Your task to perform on an android device: install app "Google Play Music" Image 0: 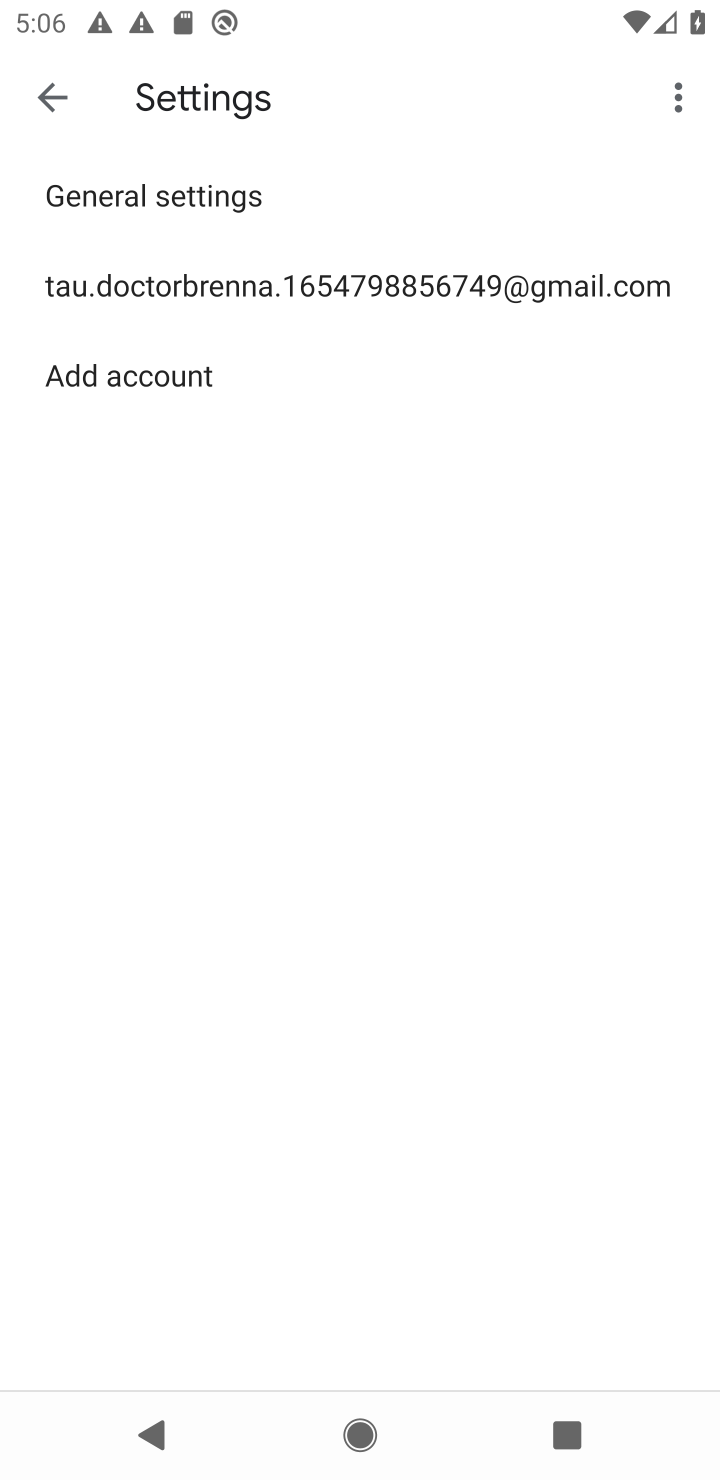
Step 0: press home button
Your task to perform on an android device: install app "Google Play Music" Image 1: 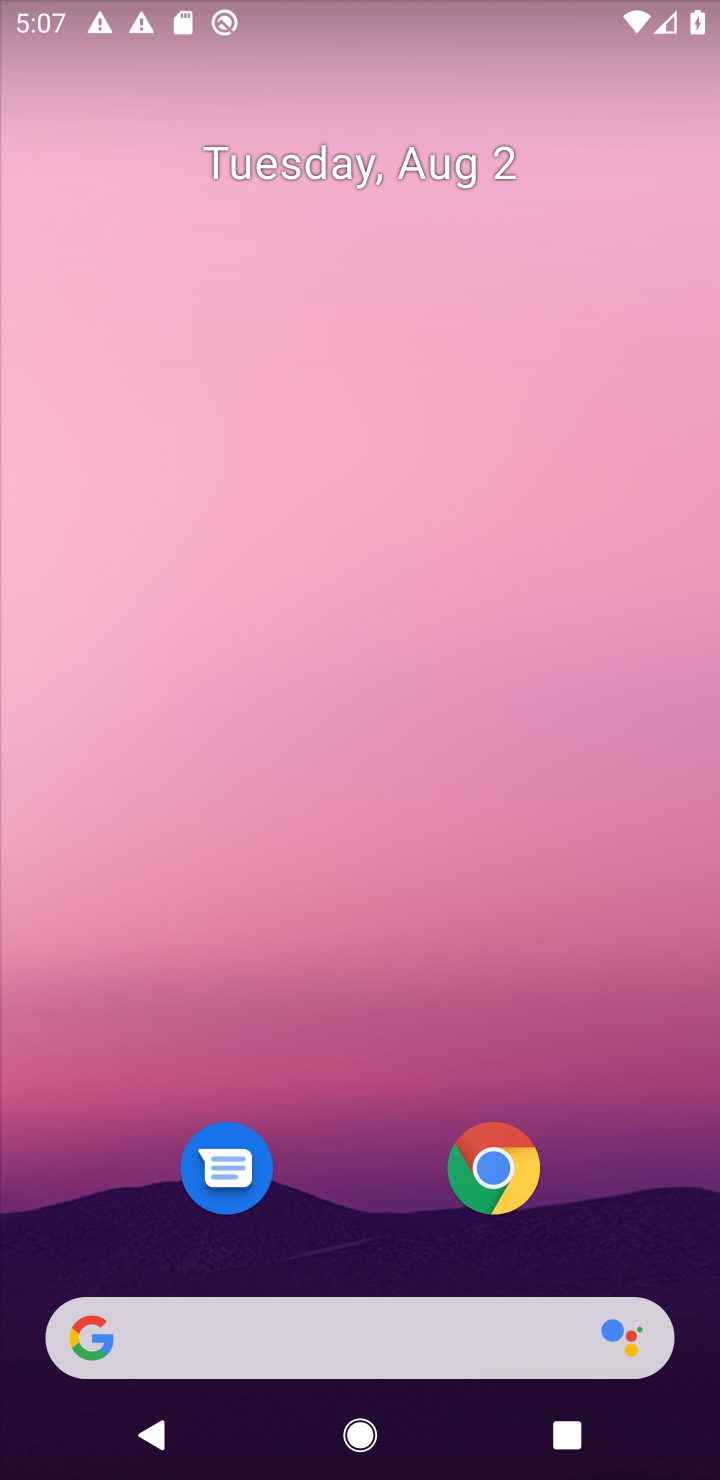
Step 1: drag from (223, 669) to (323, 42)
Your task to perform on an android device: install app "Google Play Music" Image 2: 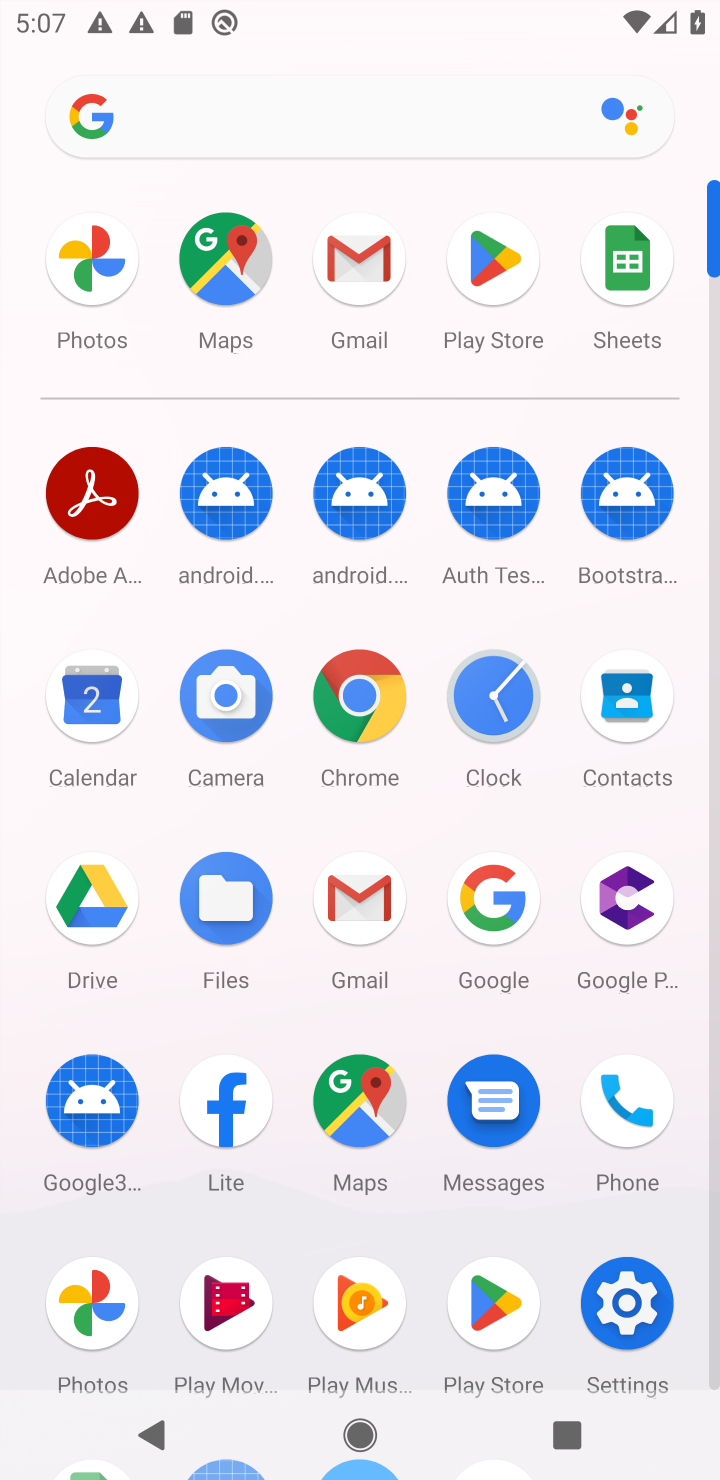
Step 2: click (494, 285)
Your task to perform on an android device: install app "Google Play Music" Image 3: 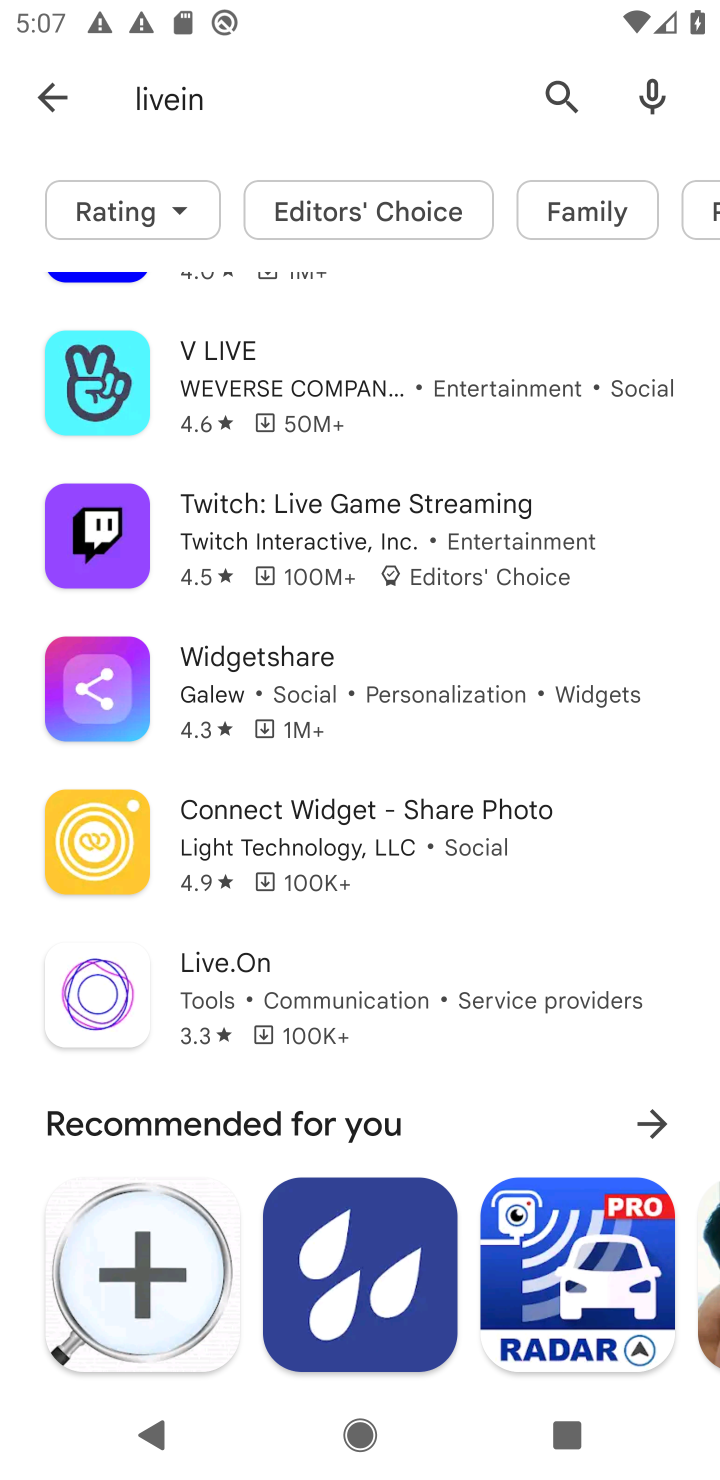
Step 3: click (268, 91)
Your task to perform on an android device: install app "Google Play Music" Image 4: 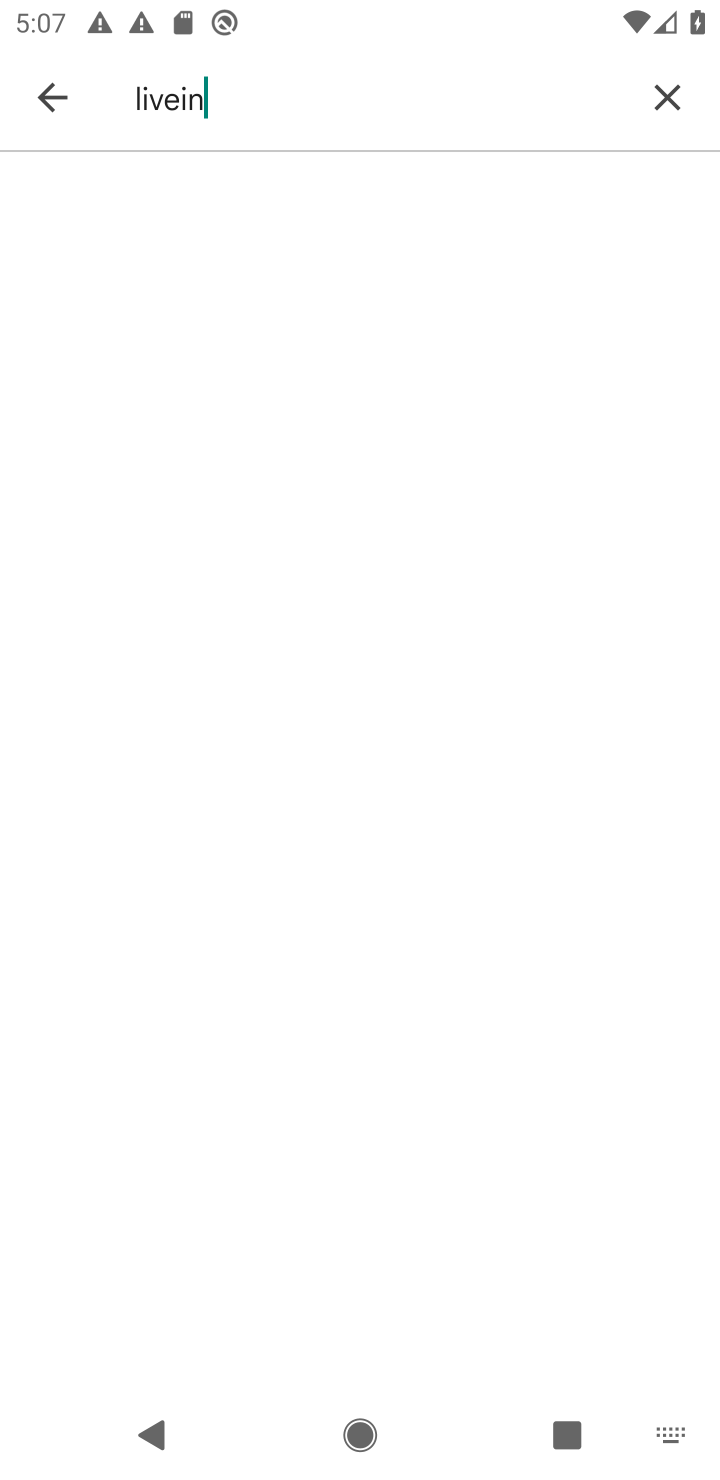
Step 4: click (660, 89)
Your task to perform on an android device: install app "Google Play Music" Image 5: 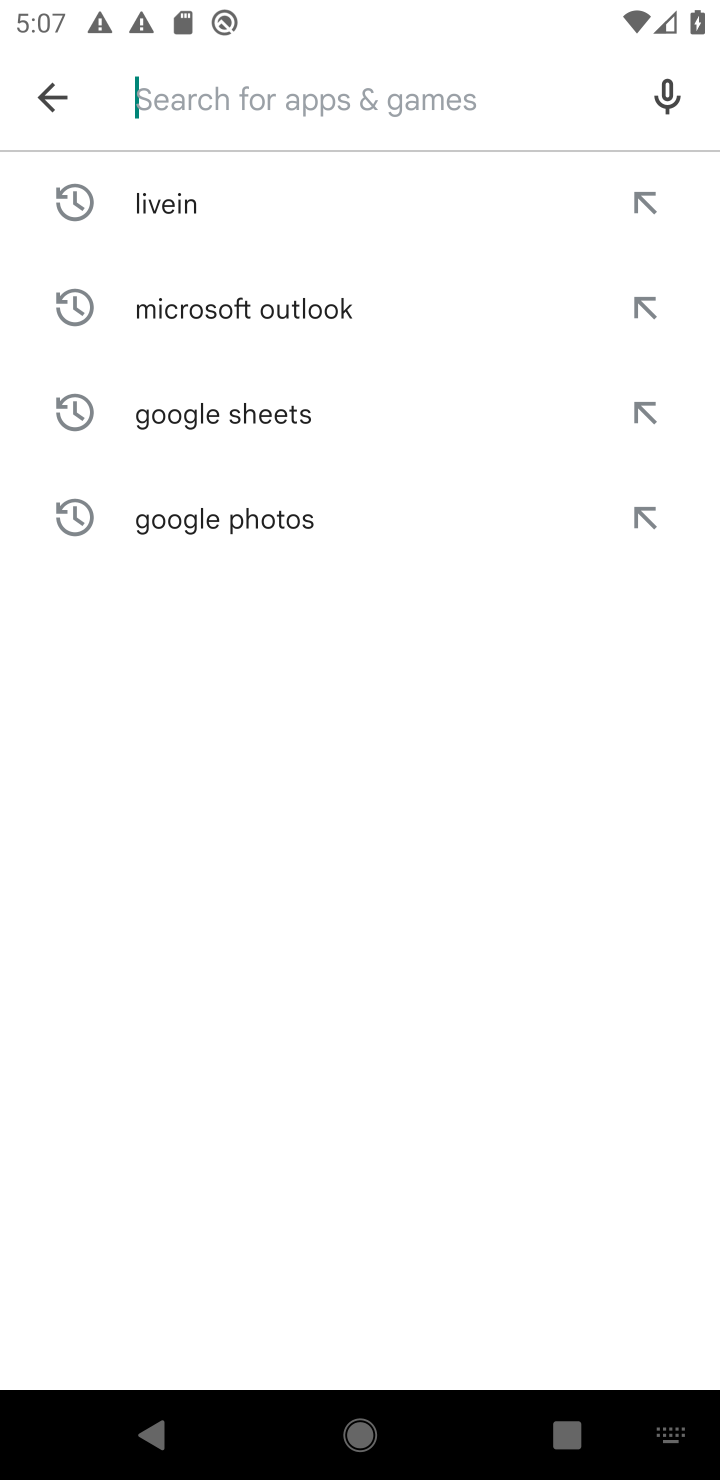
Step 5: type ""
Your task to perform on an android device: install app "Google Play Music" Image 6: 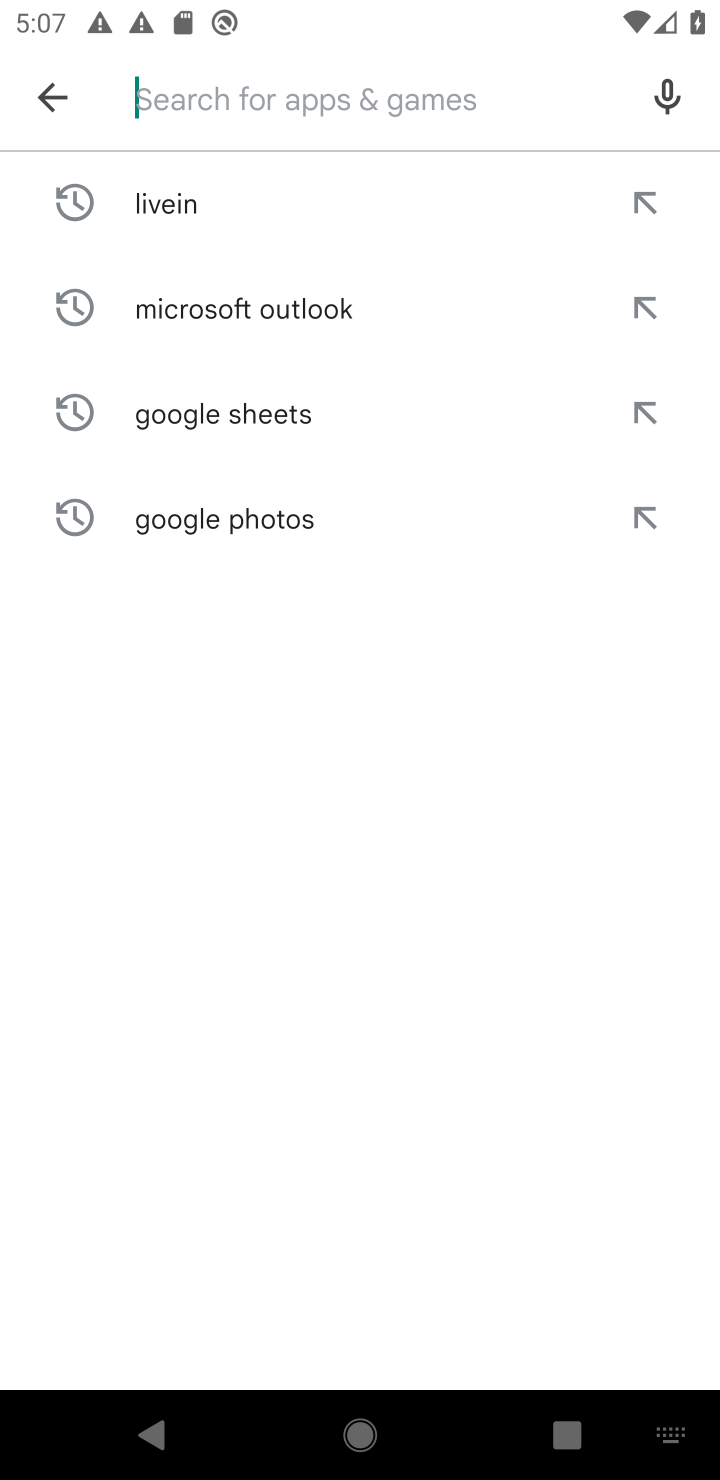
Step 6: type "google play music"
Your task to perform on an android device: install app "Google Play Music" Image 7: 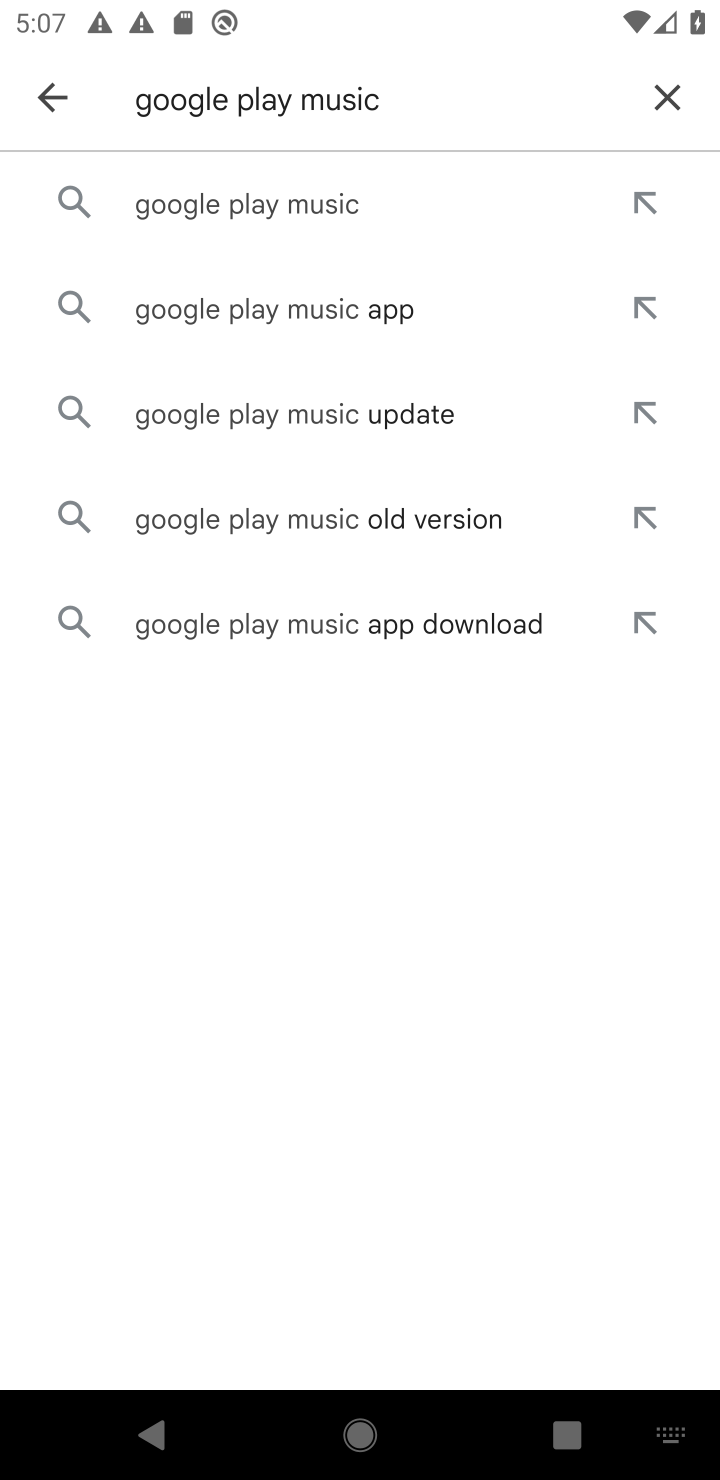
Step 7: click (314, 216)
Your task to perform on an android device: install app "Google Play Music" Image 8: 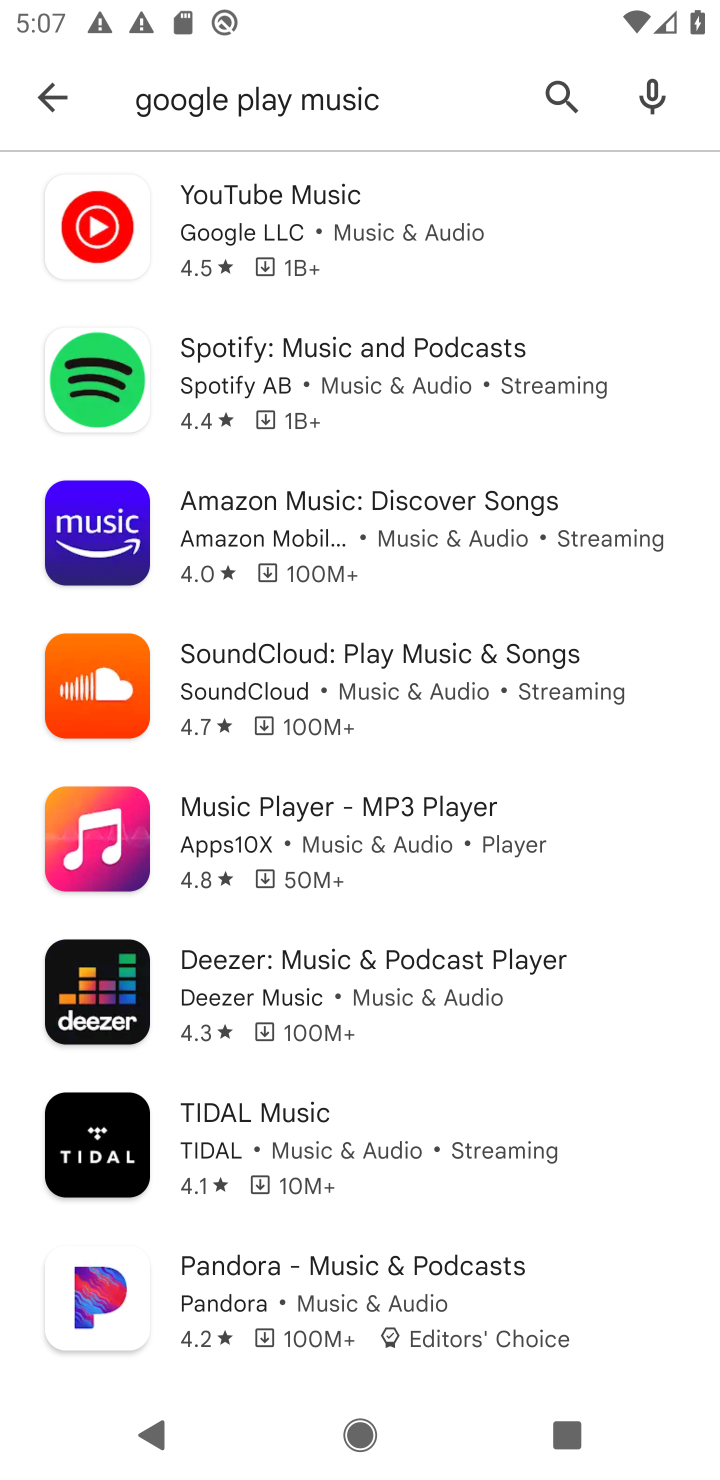
Step 8: task complete